Your task to perform on an android device: open device folders in google photos Image 0: 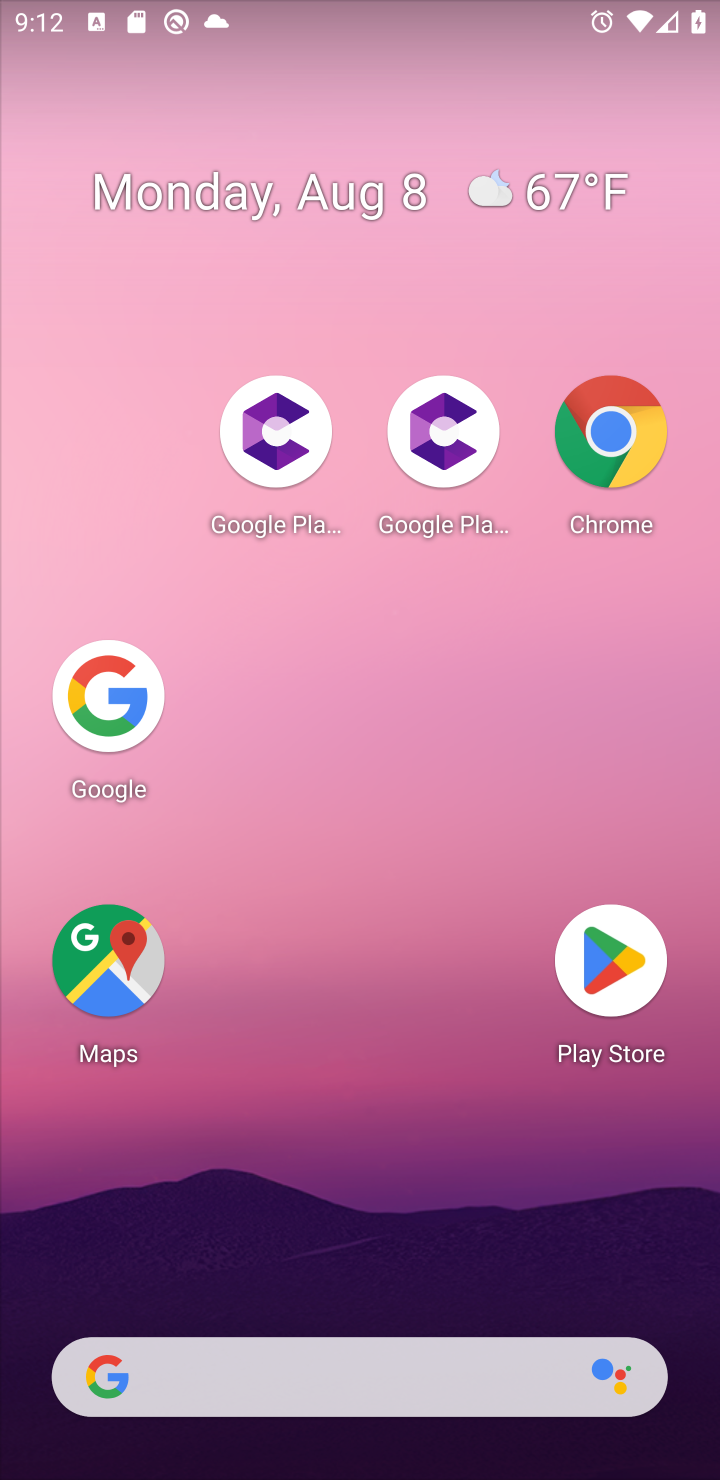
Step 0: drag from (322, 1222) to (444, 208)
Your task to perform on an android device: open device folders in google photos Image 1: 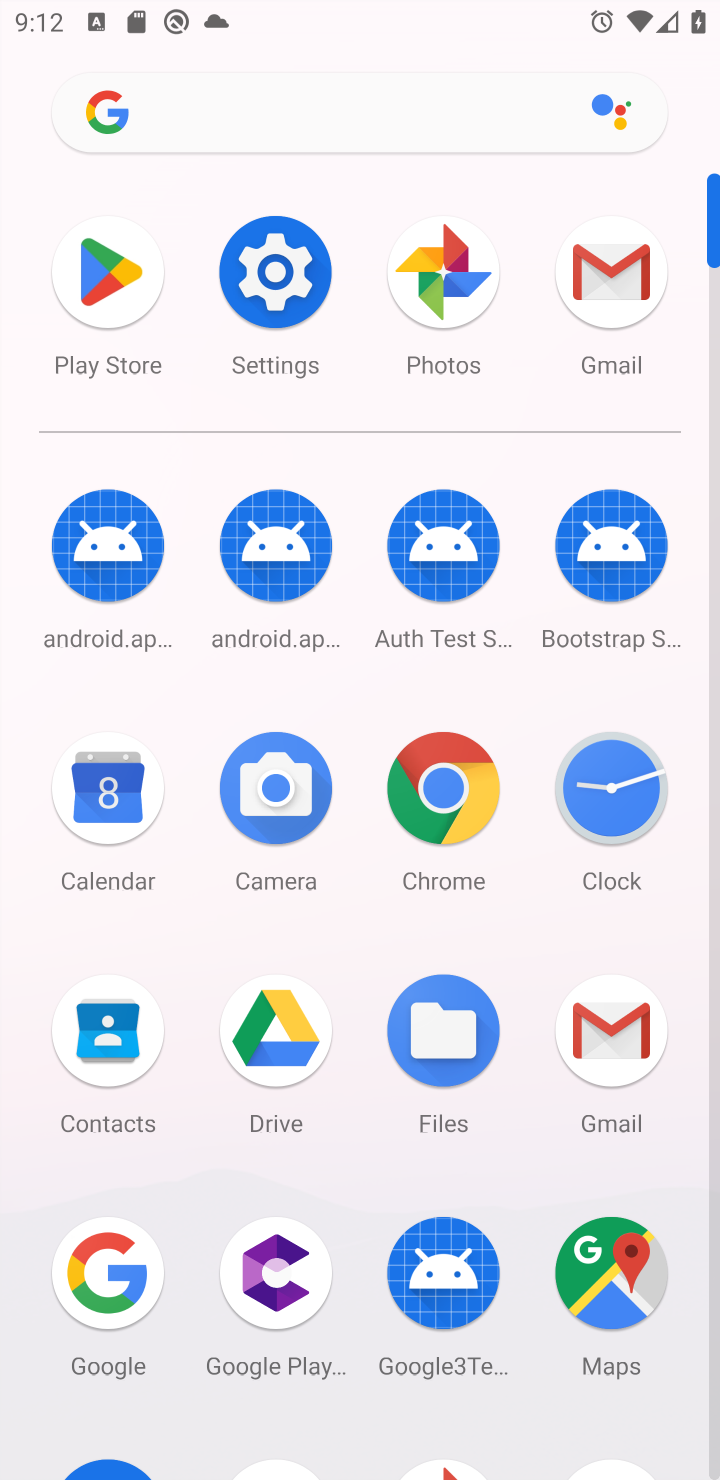
Step 1: click (467, 260)
Your task to perform on an android device: open device folders in google photos Image 2: 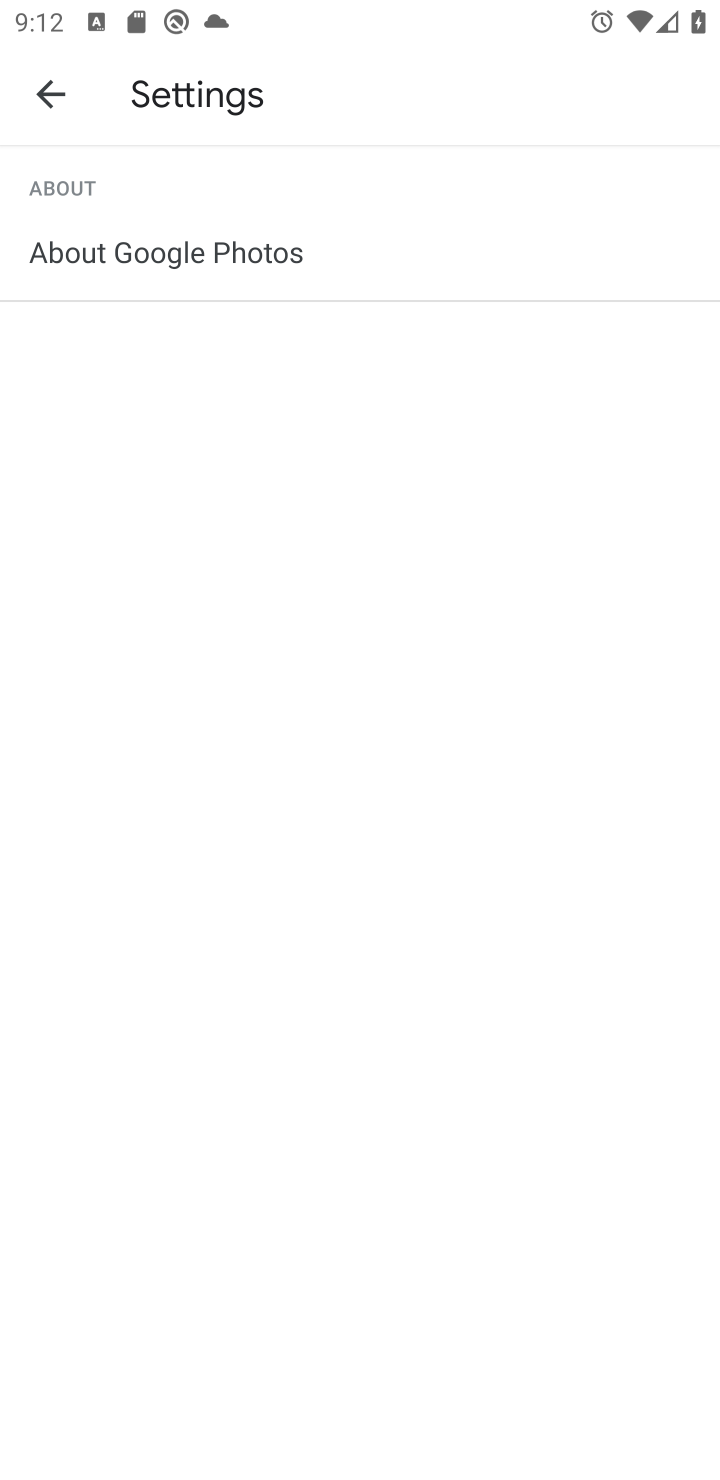
Step 2: click (48, 109)
Your task to perform on an android device: open device folders in google photos Image 3: 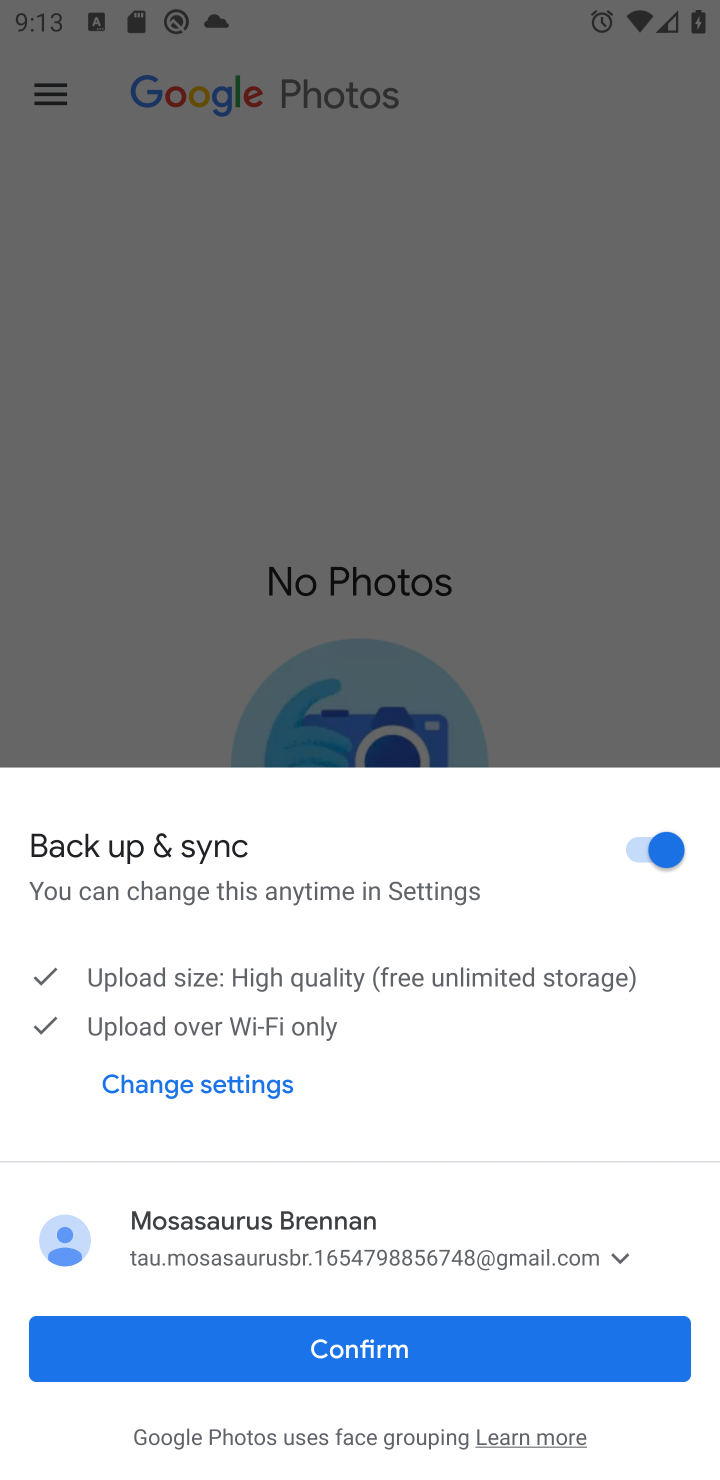
Step 3: click (371, 1355)
Your task to perform on an android device: open device folders in google photos Image 4: 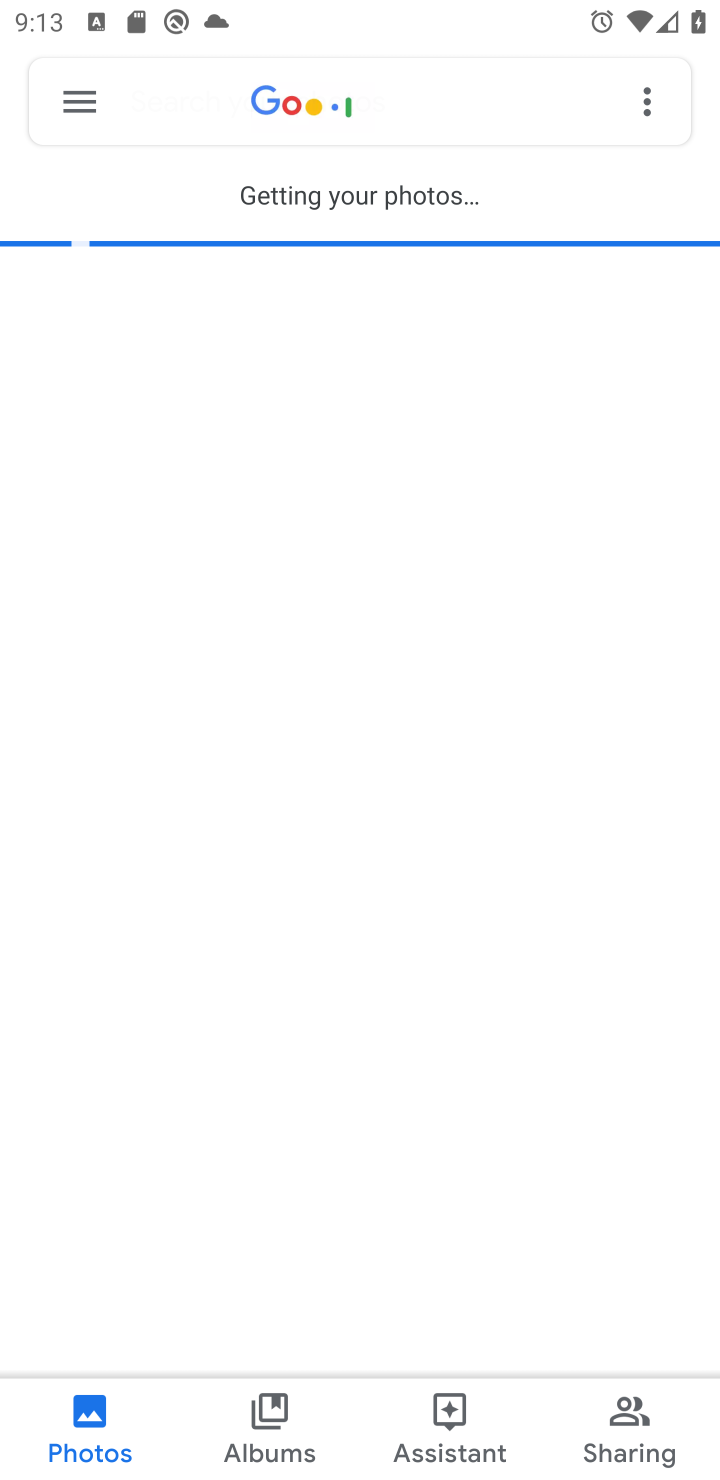
Step 4: click (75, 99)
Your task to perform on an android device: open device folders in google photos Image 5: 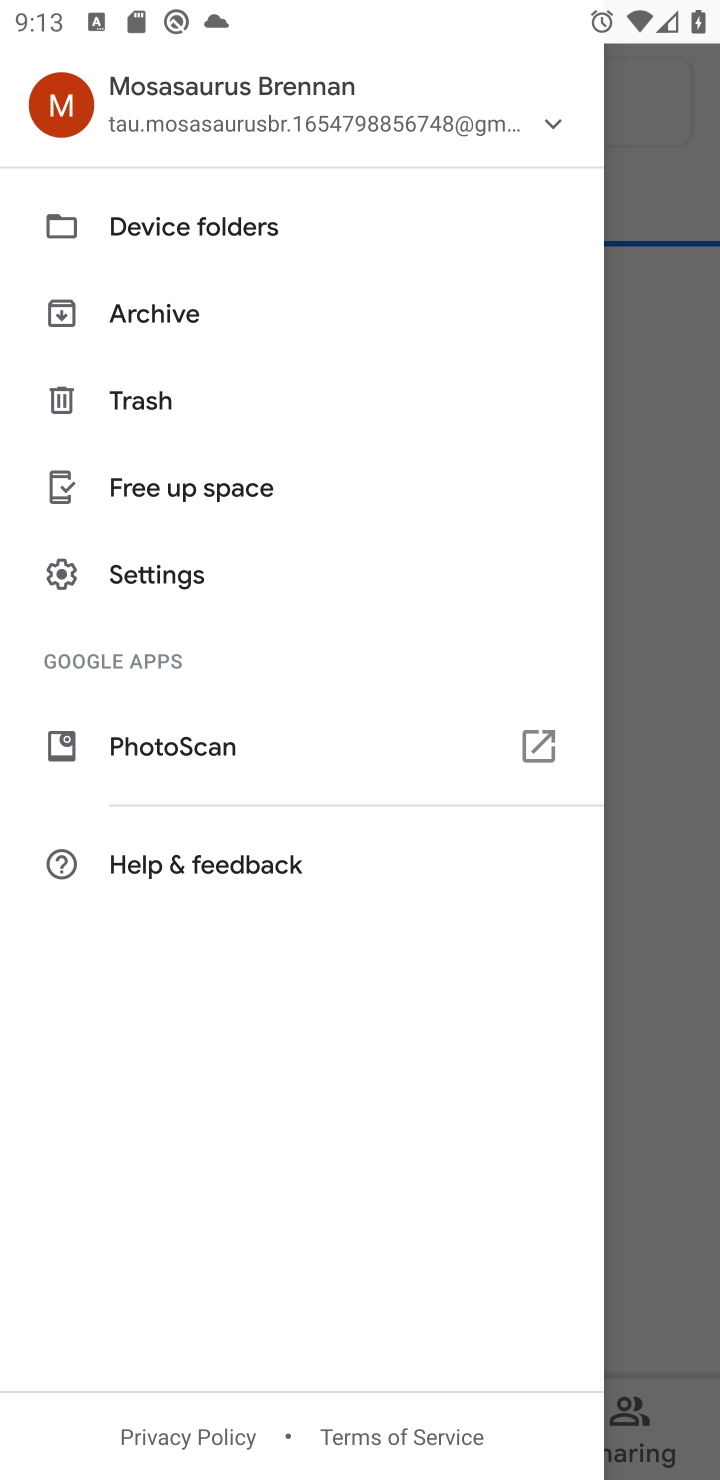
Step 5: click (157, 212)
Your task to perform on an android device: open device folders in google photos Image 6: 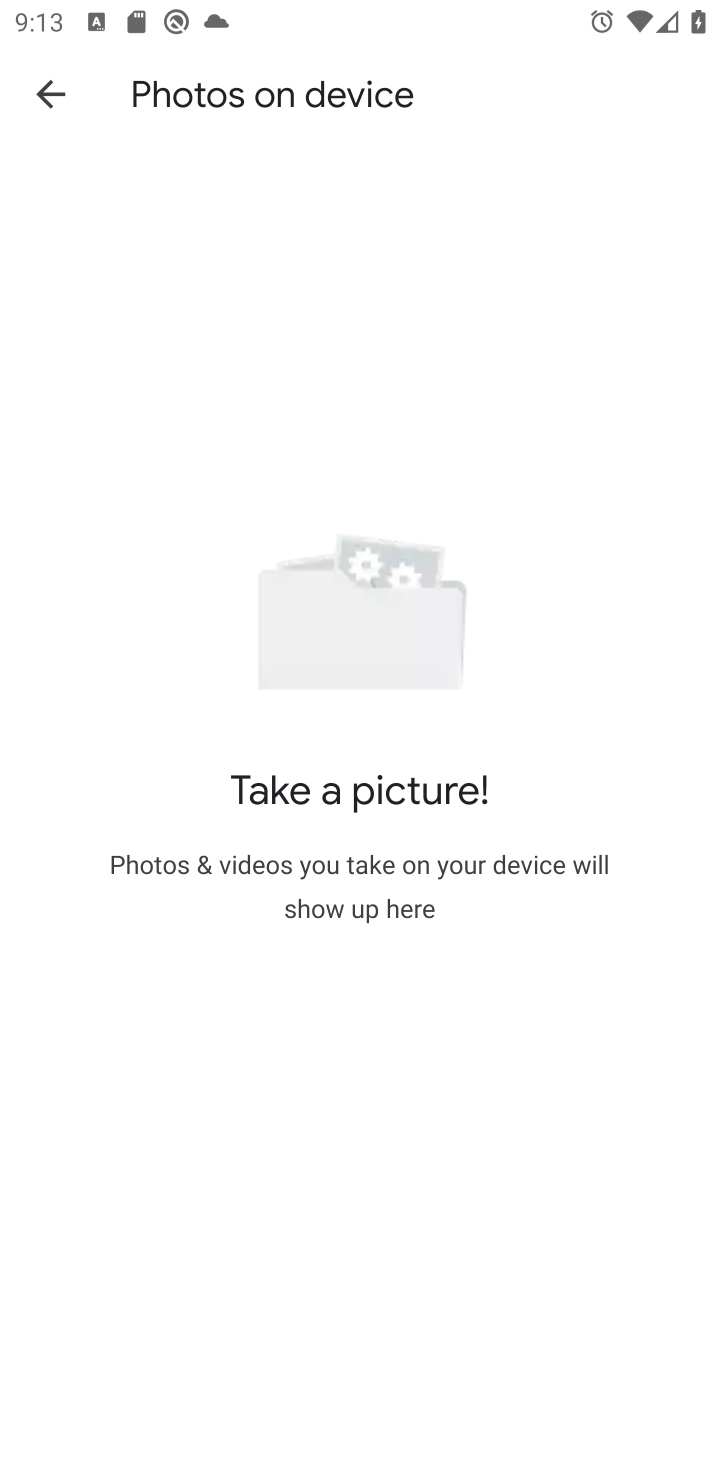
Step 6: task complete